Your task to perform on an android device: set an alarm Image 0: 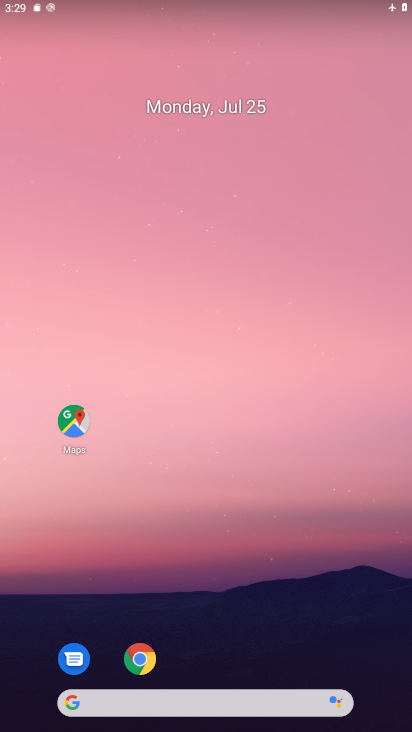
Step 0: drag from (181, 593) to (187, 3)
Your task to perform on an android device: set an alarm Image 1: 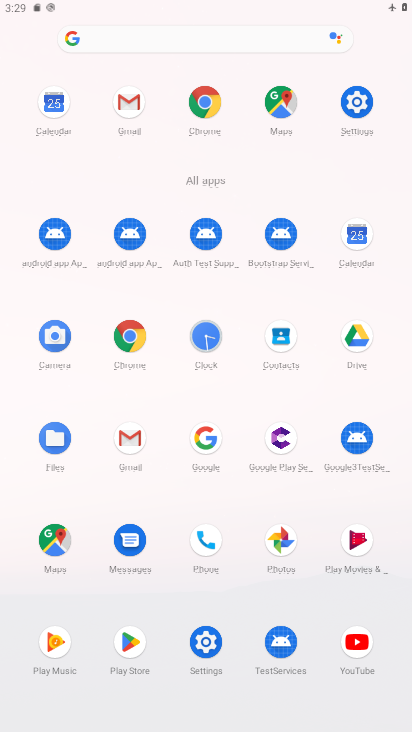
Step 1: click (199, 346)
Your task to perform on an android device: set an alarm Image 2: 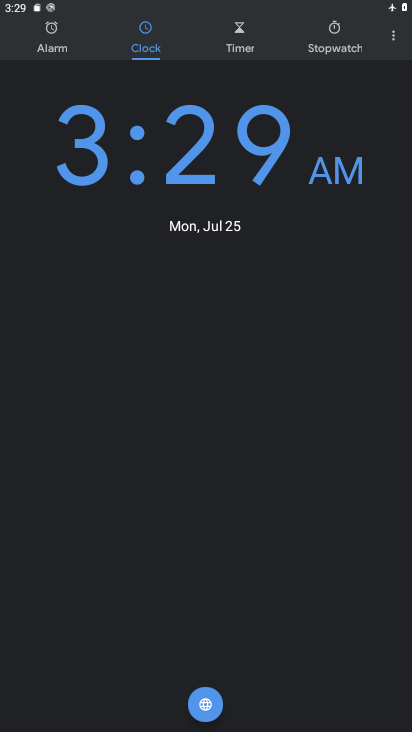
Step 2: click (53, 37)
Your task to perform on an android device: set an alarm Image 3: 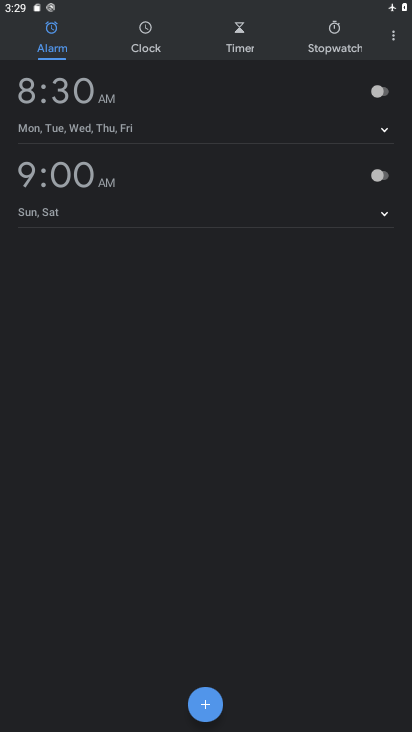
Step 3: click (387, 89)
Your task to perform on an android device: set an alarm Image 4: 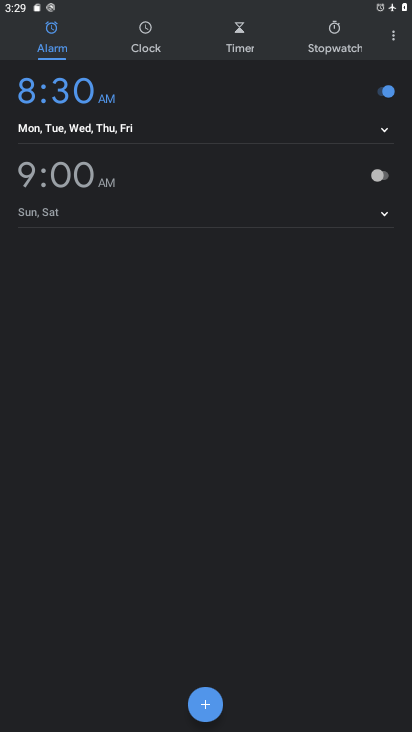
Step 4: task complete